Your task to perform on an android device: toggle translation in the chrome app Image 0: 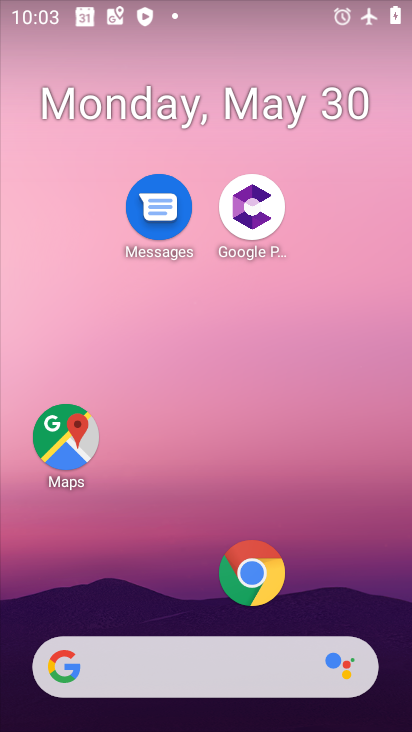
Step 0: click (246, 591)
Your task to perform on an android device: toggle translation in the chrome app Image 1: 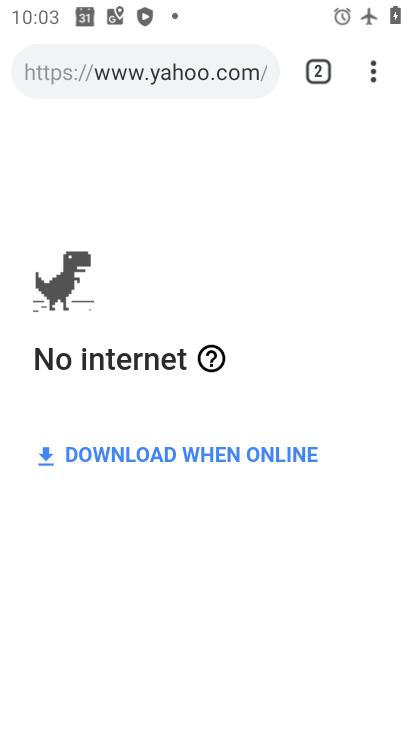
Step 1: click (376, 82)
Your task to perform on an android device: toggle translation in the chrome app Image 2: 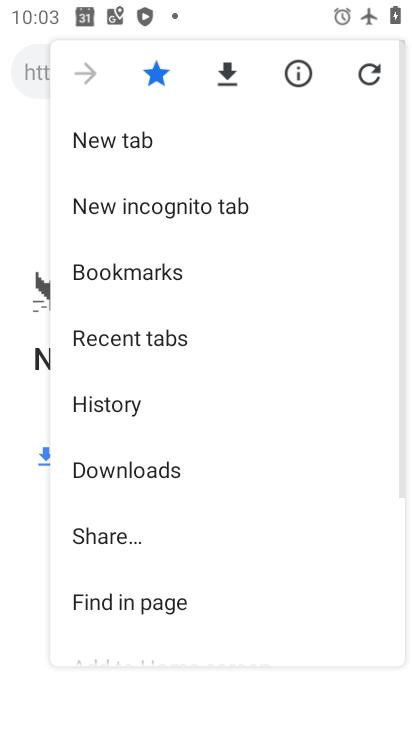
Step 2: drag from (198, 588) to (247, 183)
Your task to perform on an android device: toggle translation in the chrome app Image 3: 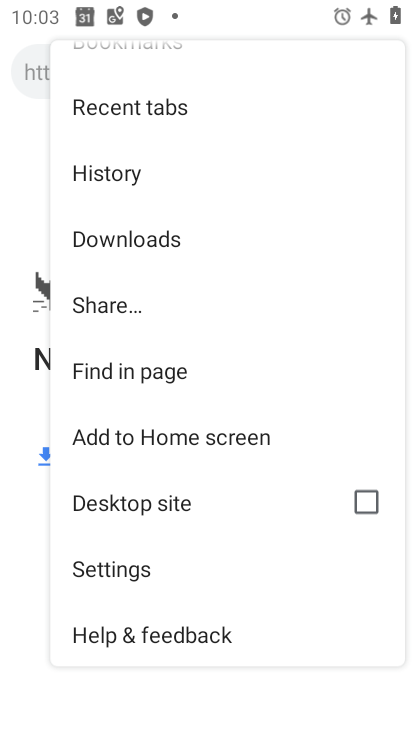
Step 3: click (155, 578)
Your task to perform on an android device: toggle translation in the chrome app Image 4: 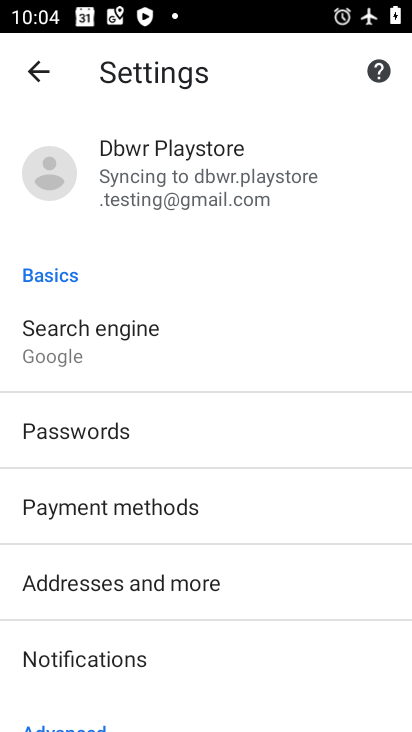
Step 4: drag from (159, 595) to (247, 70)
Your task to perform on an android device: toggle translation in the chrome app Image 5: 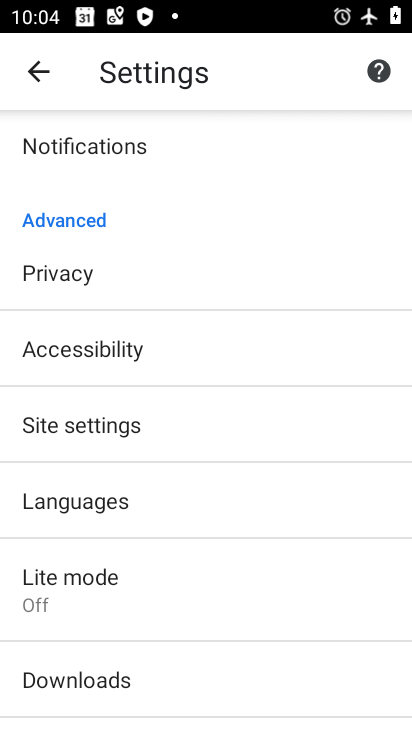
Step 5: drag from (186, 632) to (255, 290)
Your task to perform on an android device: toggle translation in the chrome app Image 6: 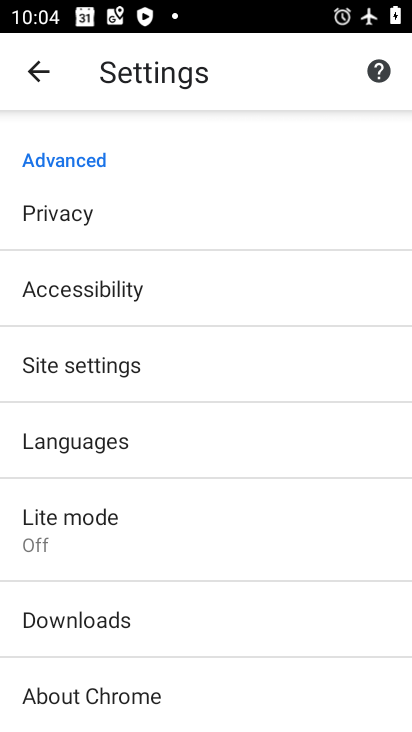
Step 6: click (39, 68)
Your task to perform on an android device: toggle translation in the chrome app Image 7: 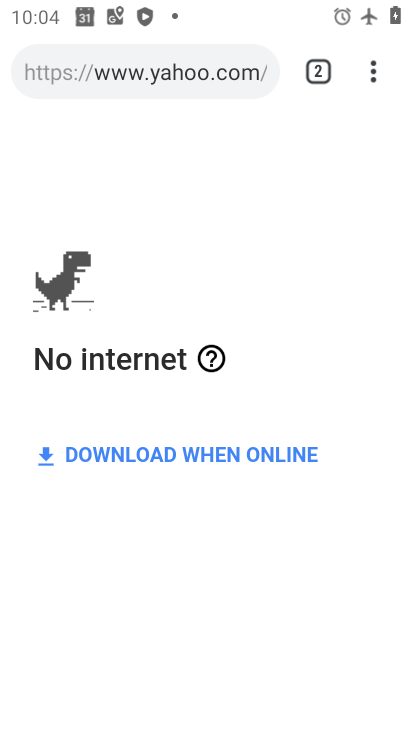
Step 7: click (382, 86)
Your task to perform on an android device: toggle translation in the chrome app Image 8: 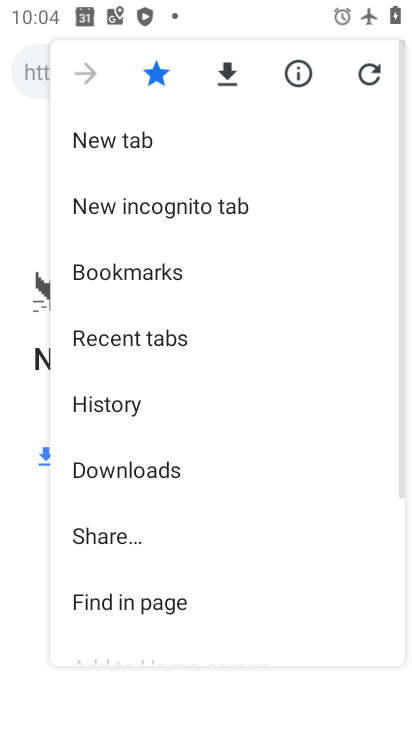
Step 8: task complete